Your task to perform on an android device: delete a single message in the gmail app Image 0: 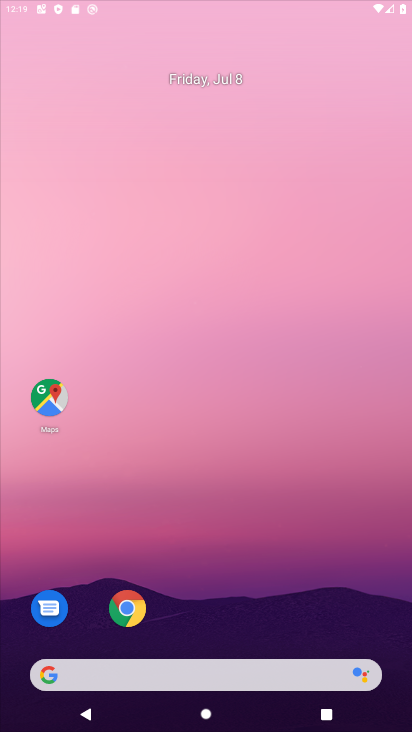
Step 0: click (130, 595)
Your task to perform on an android device: delete a single message in the gmail app Image 1: 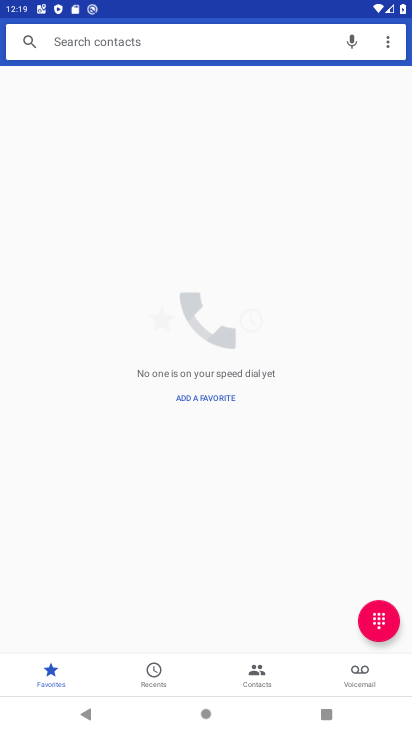
Step 1: press home button
Your task to perform on an android device: delete a single message in the gmail app Image 2: 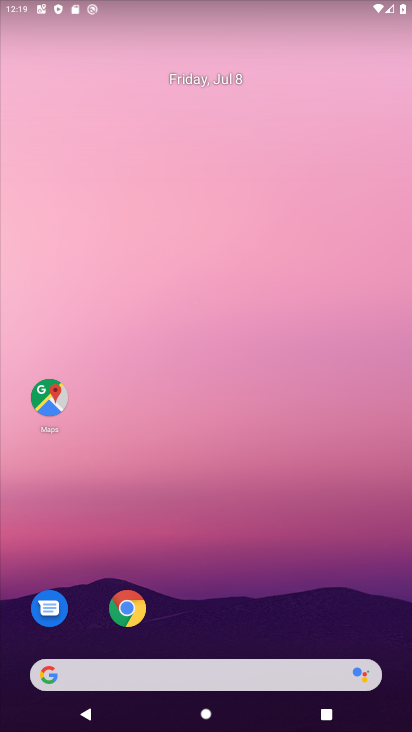
Step 2: drag from (53, 648) to (213, 43)
Your task to perform on an android device: delete a single message in the gmail app Image 3: 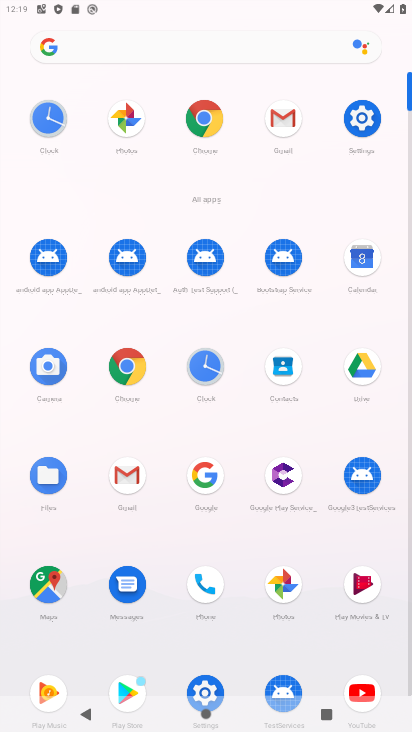
Step 3: click (116, 475)
Your task to perform on an android device: delete a single message in the gmail app Image 4: 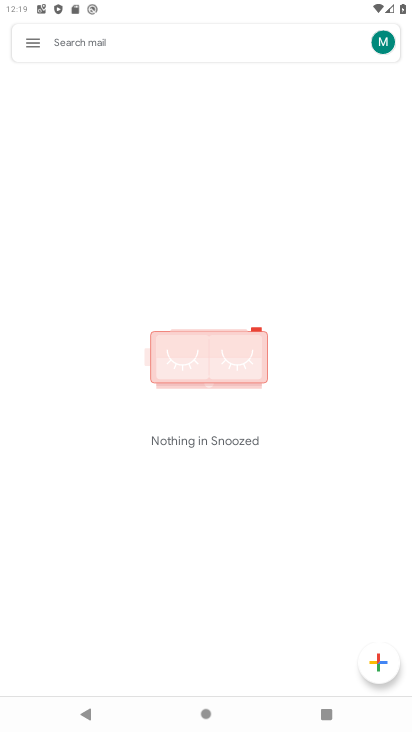
Step 4: click (32, 44)
Your task to perform on an android device: delete a single message in the gmail app Image 5: 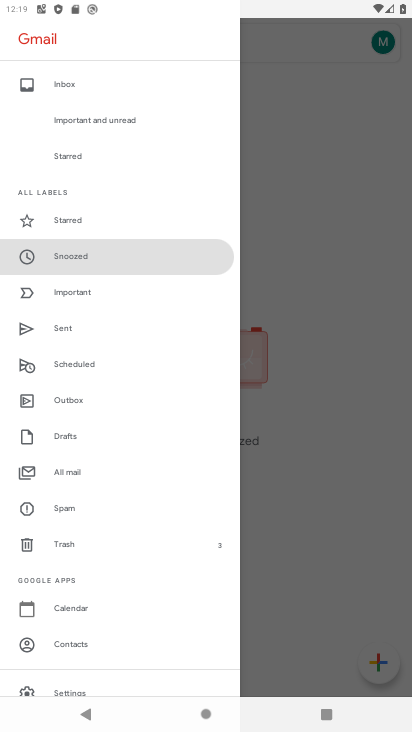
Step 5: click (69, 82)
Your task to perform on an android device: delete a single message in the gmail app Image 6: 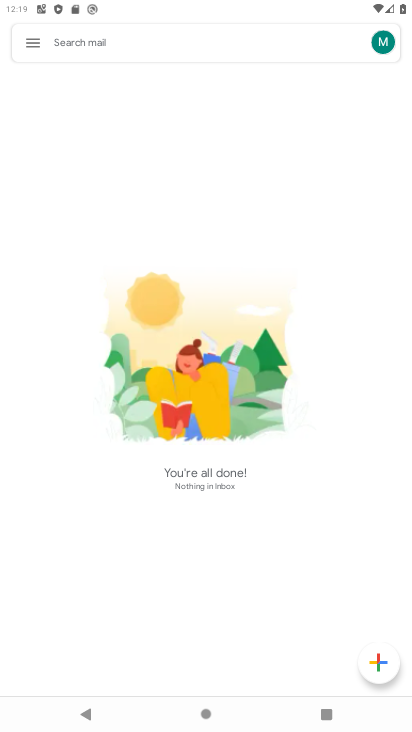
Step 6: task complete